Your task to perform on an android device: visit the assistant section in the google photos Image 0: 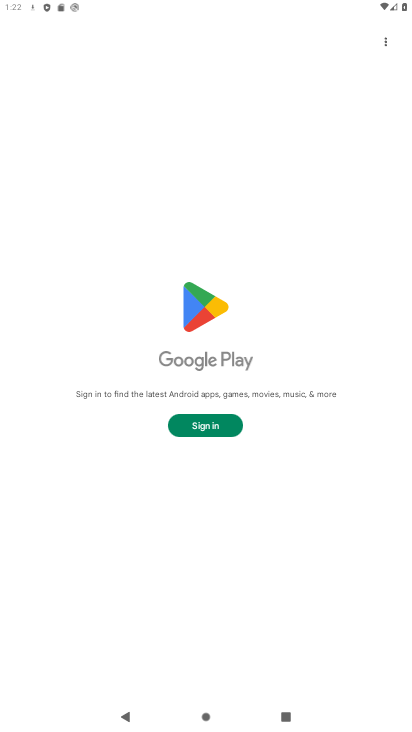
Step 0: press home button
Your task to perform on an android device: visit the assistant section in the google photos Image 1: 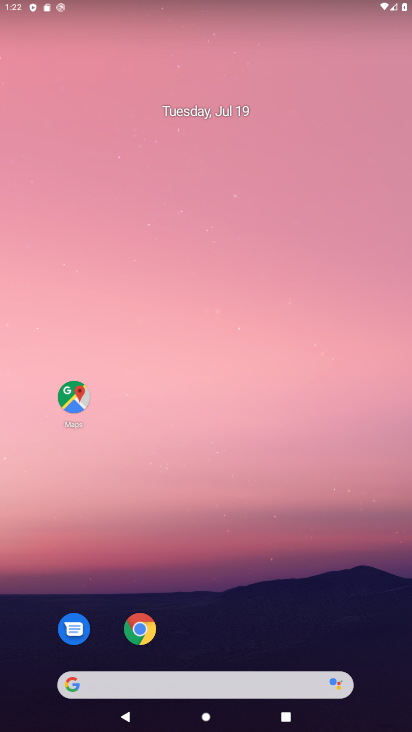
Step 1: drag from (193, 630) to (167, 265)
Your task to perform on an android device: visit the assistant section in the google photos Image 2: 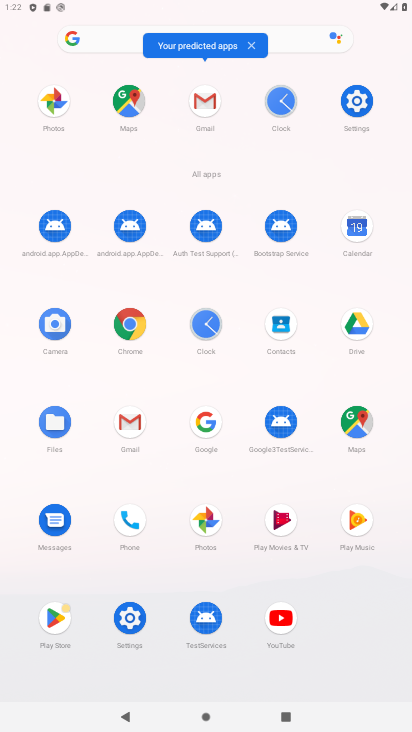
Step 2: click (50, 101)
Your task to perform on an android device: visit the assistant section in the google photos Image 3: 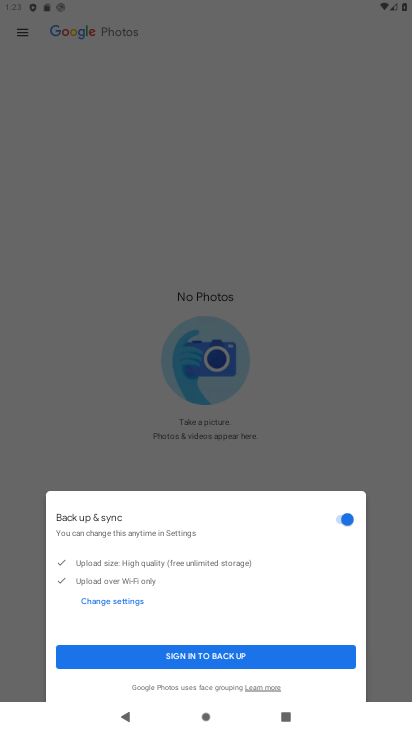
Step 3: click (226, 658)
Your task to perform on an android device: visit the assistant section in the google photos Image 4: 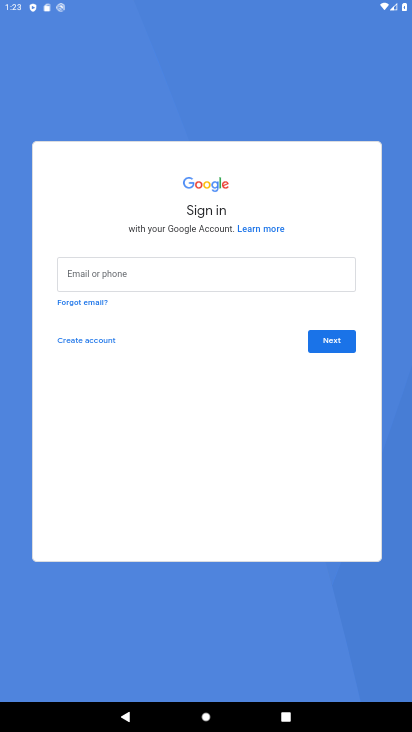
Step 4: task complete